Your task to perform on an android device: set an alarm Image 0: 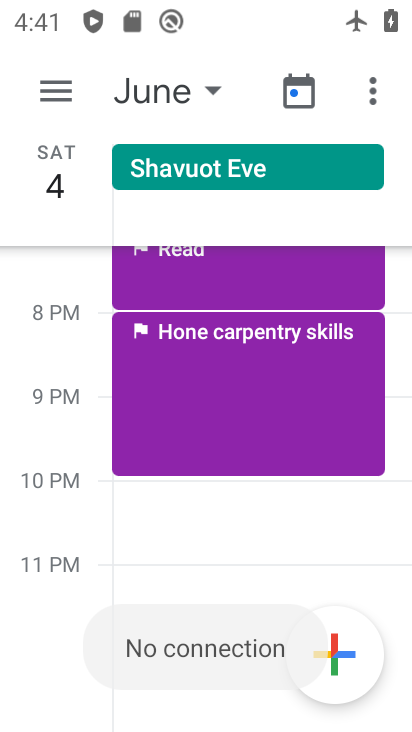
Step 0: press home button
Your task to perform on an android device: set an alarm Image 1: 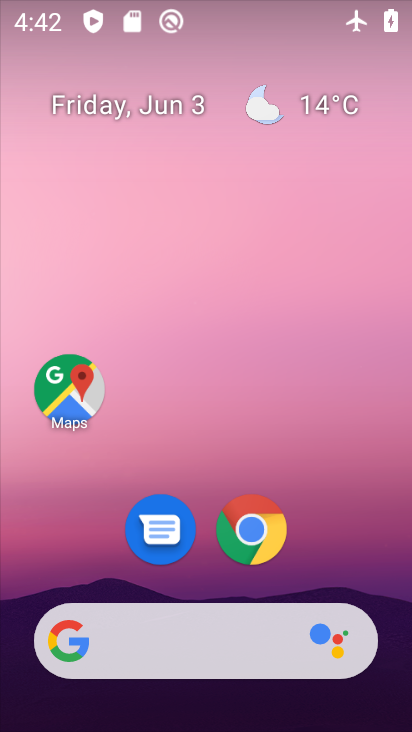
Step 1: drag from (200, 572) to (222, 69)
Your task to perform on an android device: set an alarm Image 2: 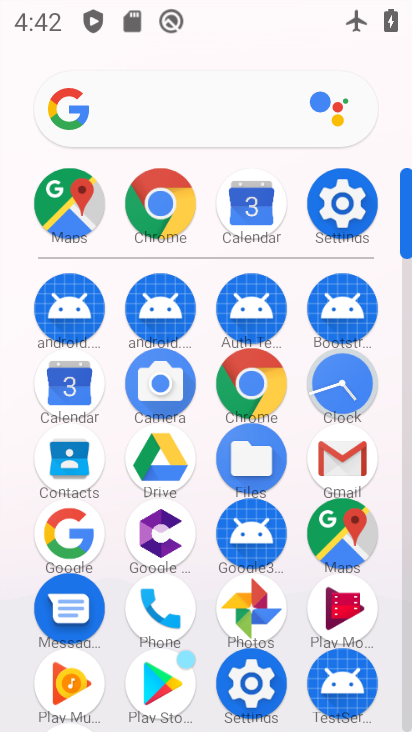
Step 2: click (342, 378)
Your task to perform on an android device: set an alarm Image 3: 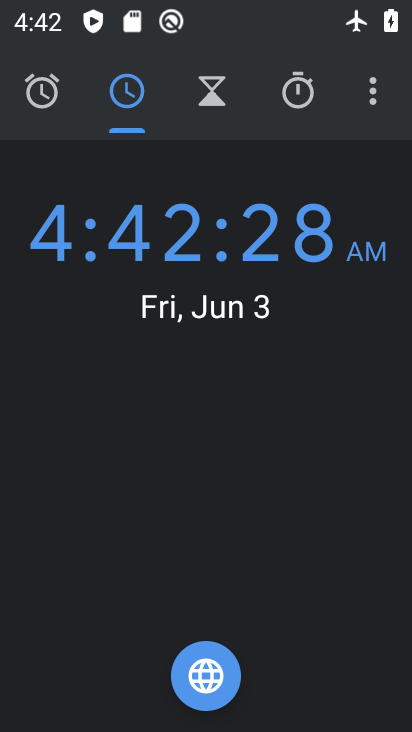
Step 3: click (40, 91)
Your task to perform on an android device: set an alarm Image 4: 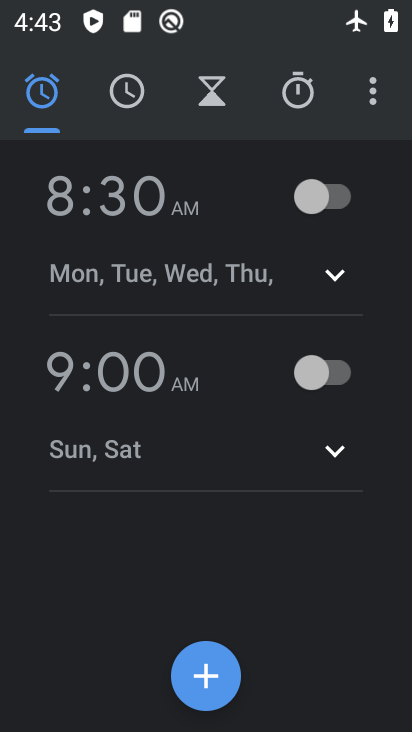
Step 4: click (338, 194)
Your task to perform on an android device: set an alarm Image 5: 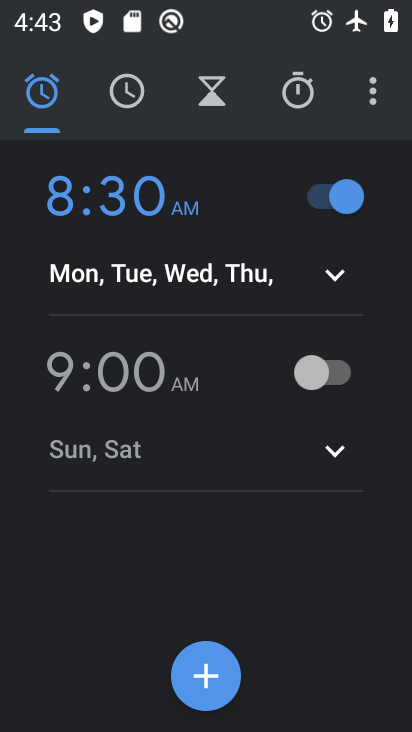
Step 5: task complete